Your task to perform on an android device: turn off data saver in the chrome app Image 0: 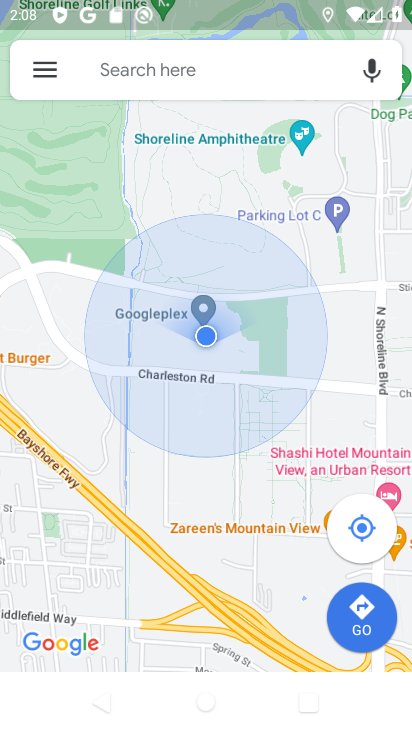
Step 0: press back button
Your task to perform on an android device: turn off data saver in the chrome app Image 1: 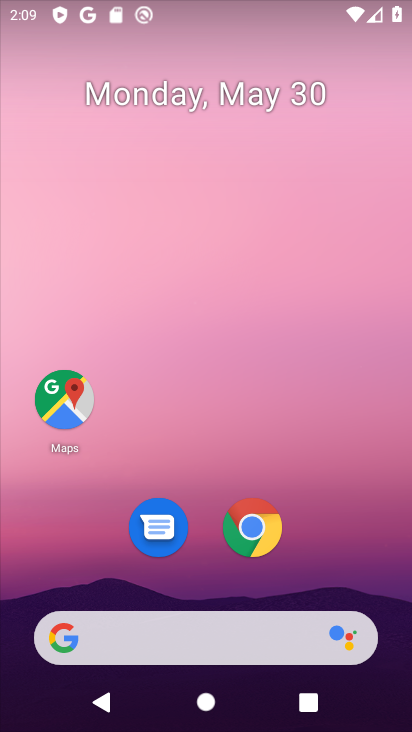
Step 1: drag from (223, 652) to (109, 191)
Your task to perform on an android device: turn off data saver in the chrome app Image 2: 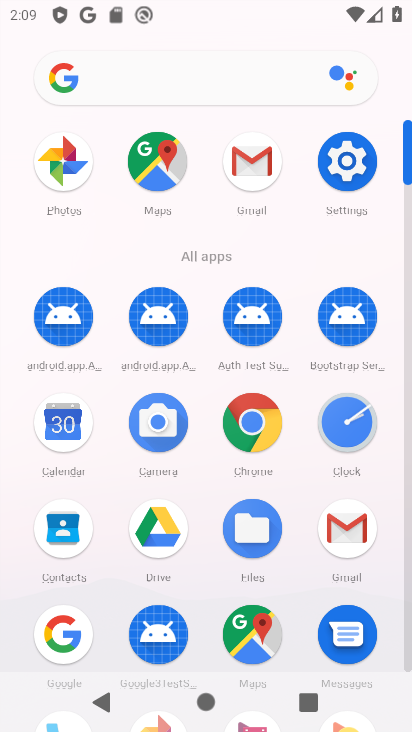
Step 2: click (244, 430)
Your task to perform on an android device: turn off data saver in the chrome app Image 3: 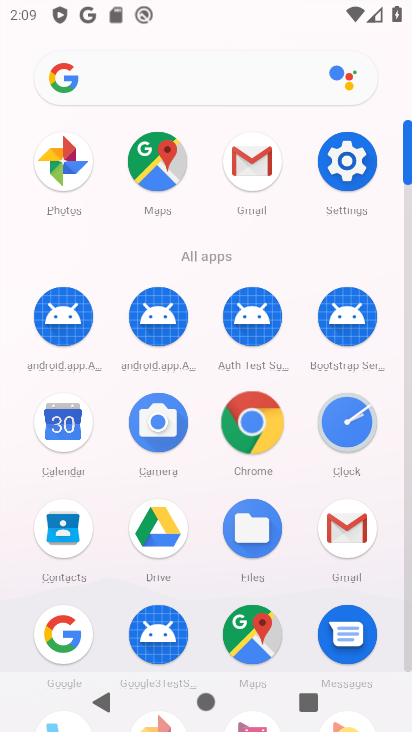
Step 3: click (244, 430)
Your task to perform on an android device: turn off data saver in the chrome app Image 4: 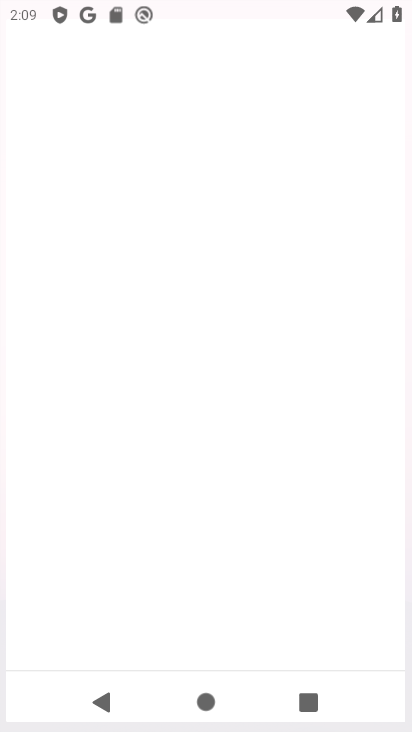
Step 4: click (244, 430)
Your task to perform on an android device: turn off data saver in the chrome app Image 5: 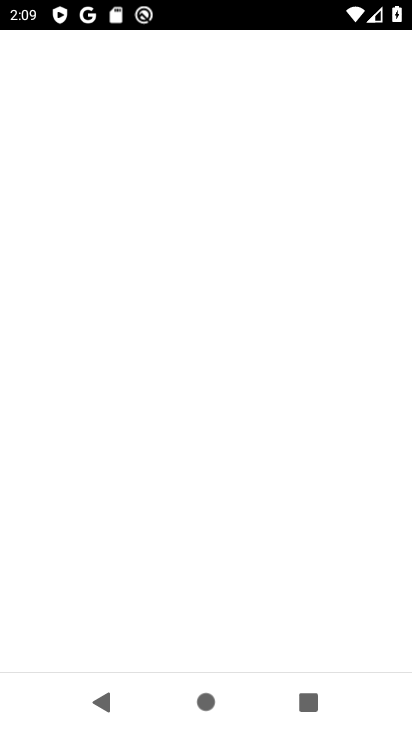
Step 5: click (246, 430)
Your task to perform on an android device: turn off data saver in the chrome app Image 6: 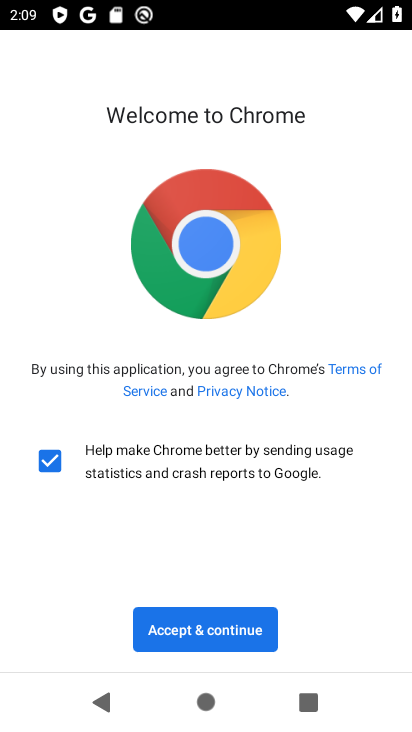
Step 6: click (216, 644)
Your task to perform on an android device: turn off data saver in the chrome app Image 7: 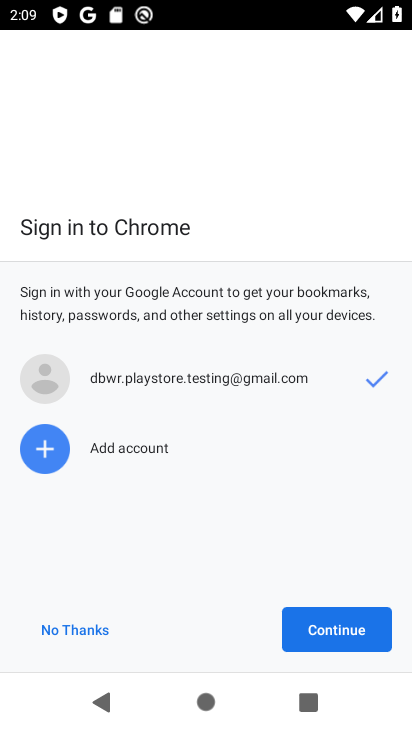
Step 7: click (216, 643)
Your task to perform on an android device: turn off data saver in the chrome app Image 8: 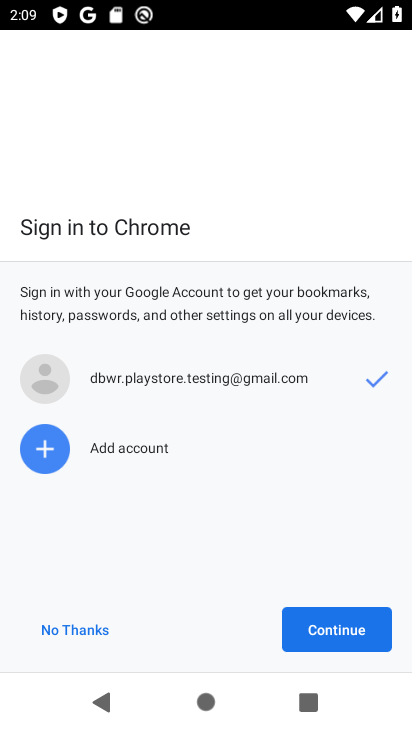
Step 8: click (216, 643)
Your task to perform on an android device: turn off data saver in the chrome app Image 9: 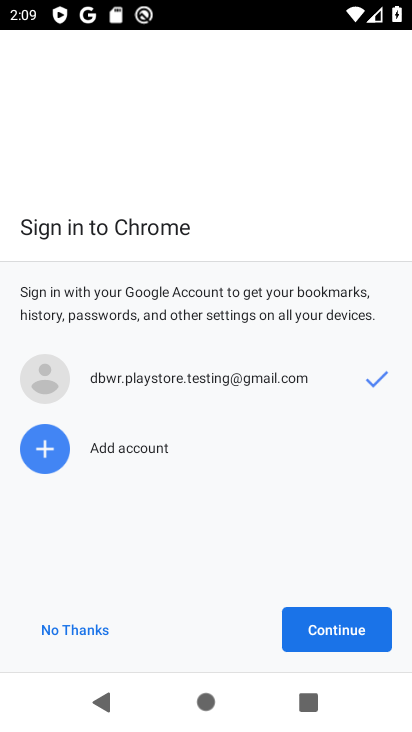
Step 9: click (313, 640)
Your task to perform on an android device: turn off data saver in the chrome app Image 10: 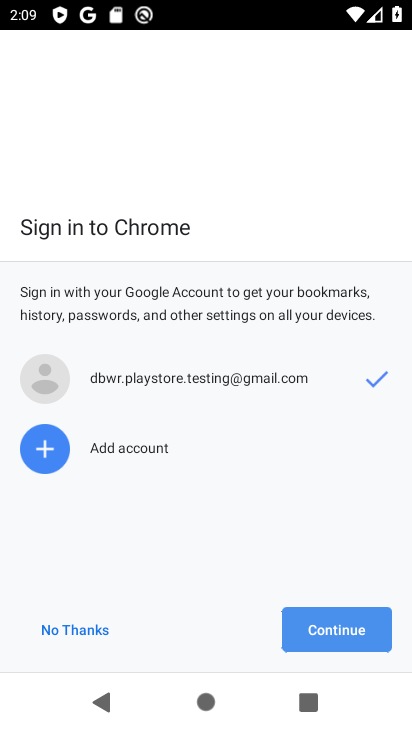
Step 10: click (316, 639)
Your task to perform on an android device: turn off data saver in the chrome app Image 11: 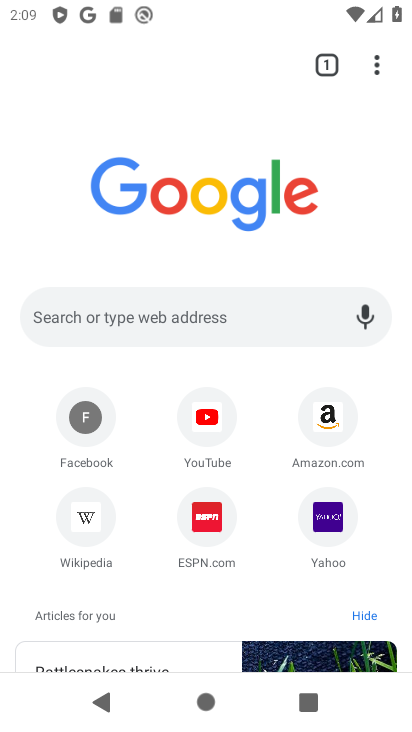
Step 11: drag from (376, 74) to (136, 540)
Your task to perform on an android device: turn off data saver in the chrome app Image 12: 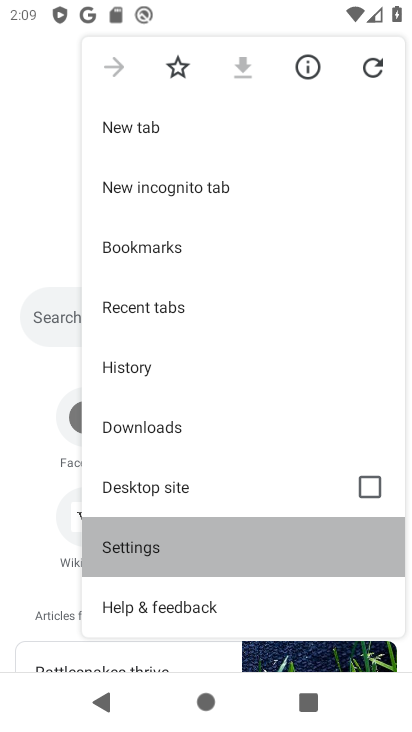
Step 12: click (121, 548)
Your task to perform on an android device: turn off data saver in the chrome app Image 13: 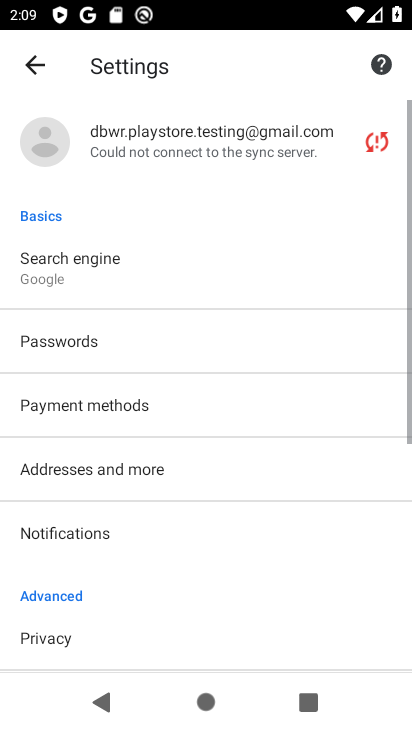
Step 13: drag from (138, 556) to (58, 35)
Your task to perform on an android device: turn off data saver in the chrome app Image 14: 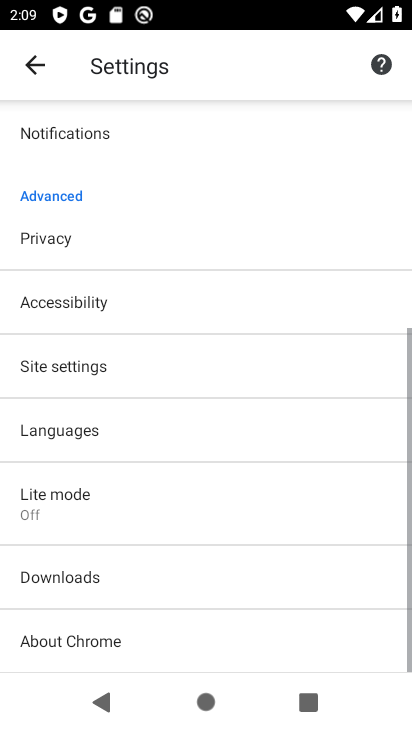
Step 14: drag from (112, 415) to (83, 34)
Your task to perform on an android device: turn off data saver in the chrome app Image 15: 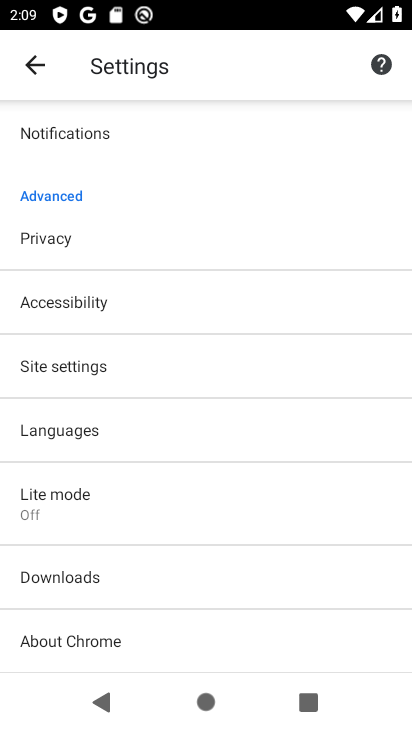
Step 15: click (45, 514)
Your task to perform on an android device: turn off data saver in the chrome app Image 16: 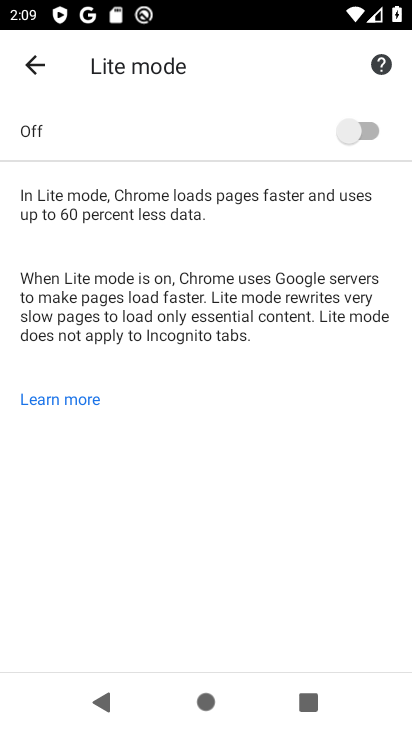
Step 16: task complete